Your task to perform on an android device: Open Wikipedia Image 0: 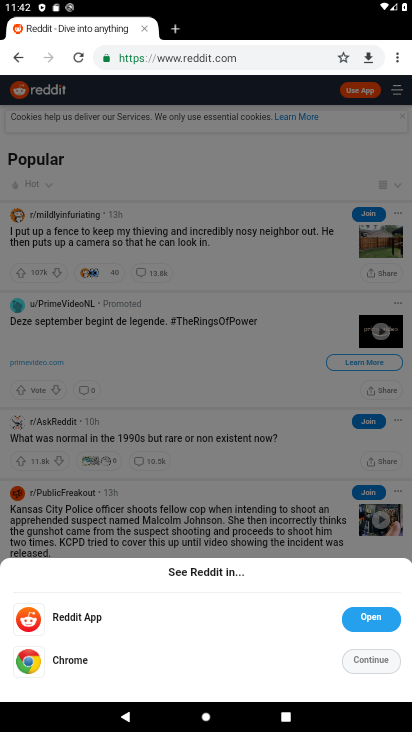
Step 0: click (211, 60)
Your task to perform on an android device: Open Wikipedia Image 1: 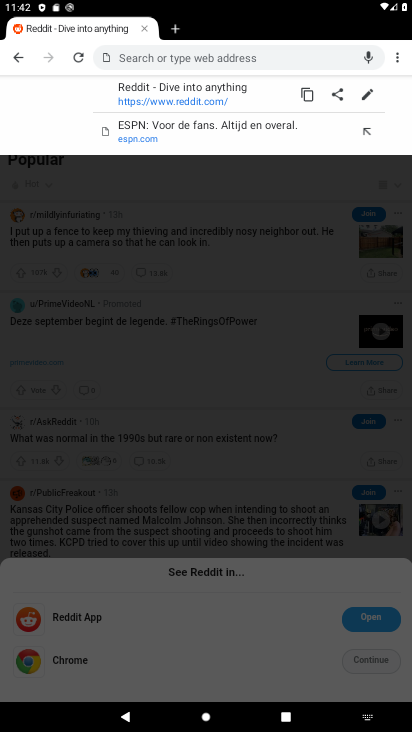
Step 1: type "wikipedia"
Your task to perform on an android device: Open Wikipedia Image 2: 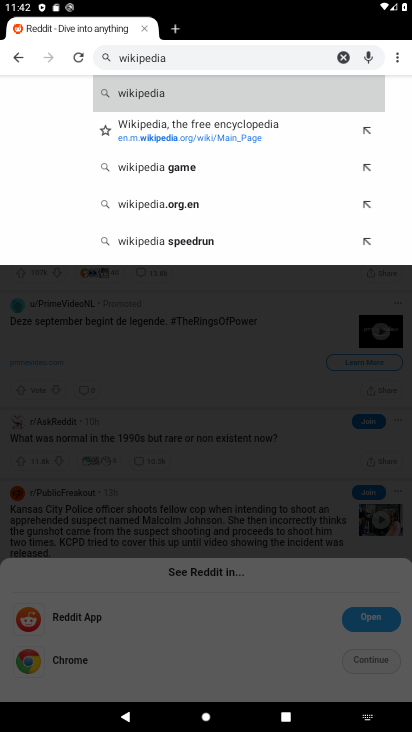
Step 2: click (157, 93)
Your task to perform on an android device: Open Wikipedia Image 3: 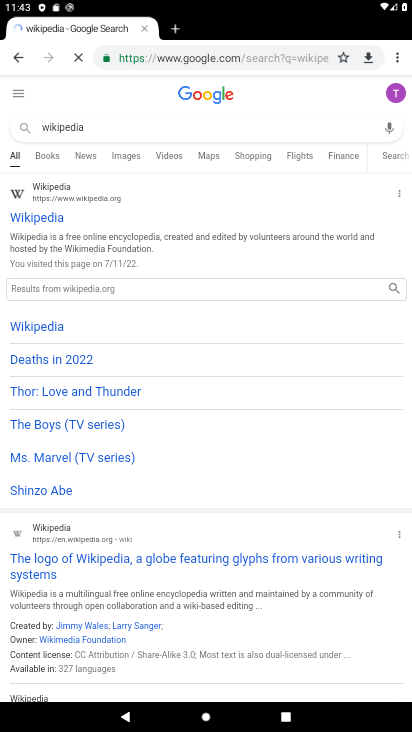
Step 3: click (55, 215)
Your task to perform on an android device: Open Wikipedia Image 4: 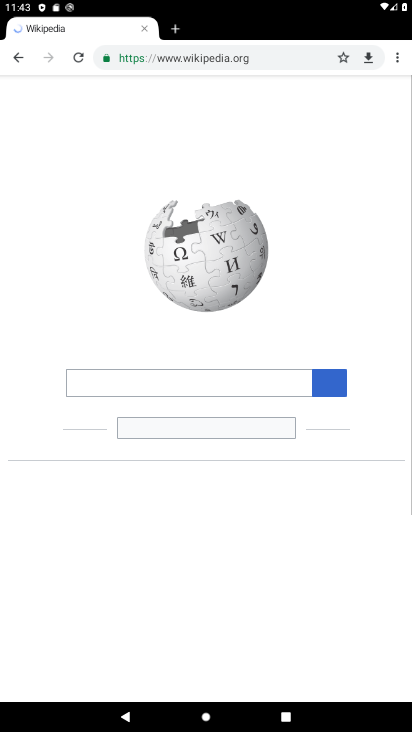
Step 4: task complete